Your task to perform on an android device: Open calendar and show me the third week of next month Image 0: 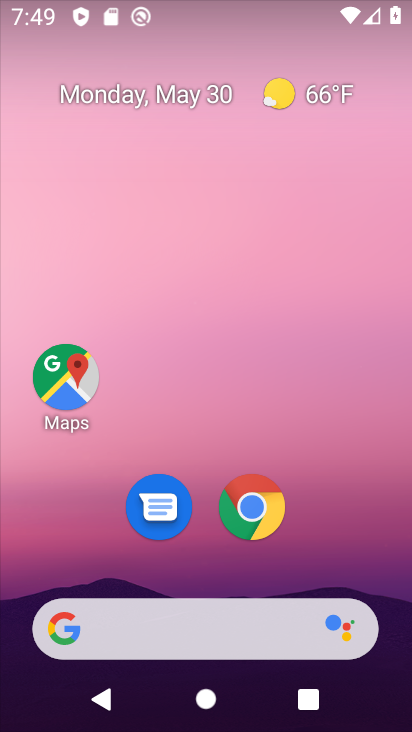
Step 0: drag from (345, 523) to (284, 171)
Your task to perform on an android device: Open calendar and show me the third week of next month Image 1: 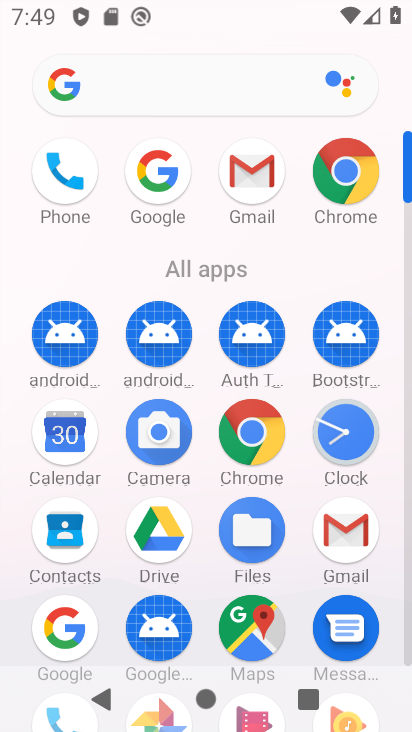
Step 1: click (57, 431)
Your task to perform on an android device: Open calendar and show me the third week of next month Image 2: 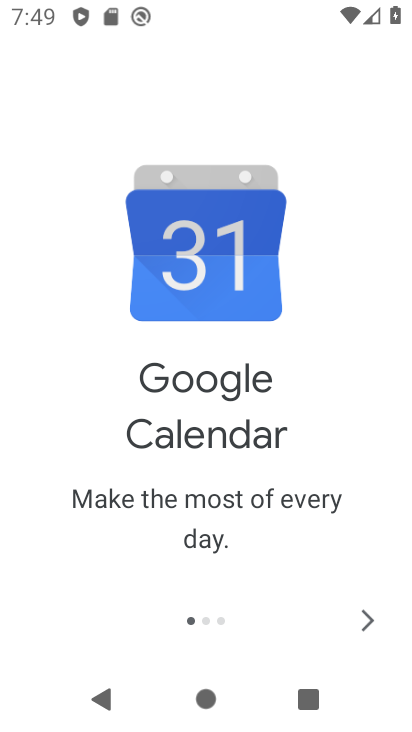
Step 2: click (357, 620)
Your task to perform on an android device: Open calendar and show me the third week of next month Image 3: 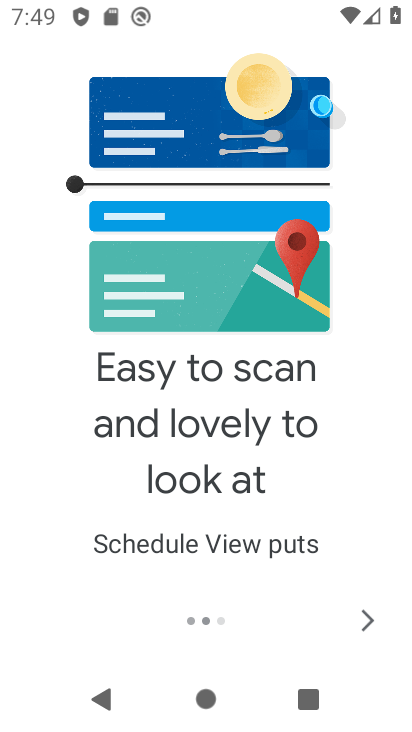
Step 3: click (357, 620)
Your task to perform on an android device: Open calendar and show me the third week of next month Image 4: 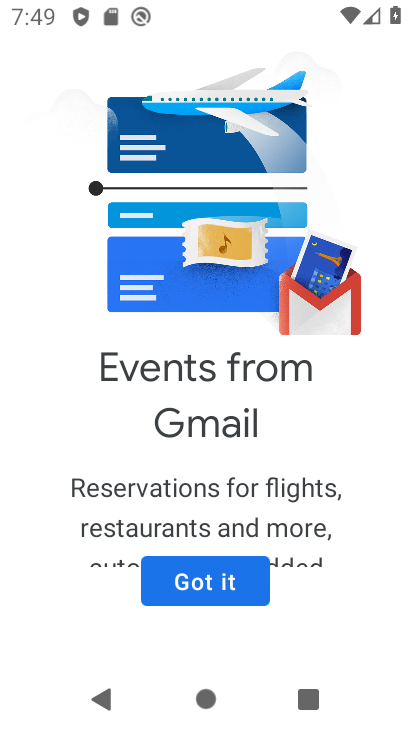
Step 4: click (181, 599)
Your task to perform on an android device: Open calendar and show me the third week of next month Image 5: 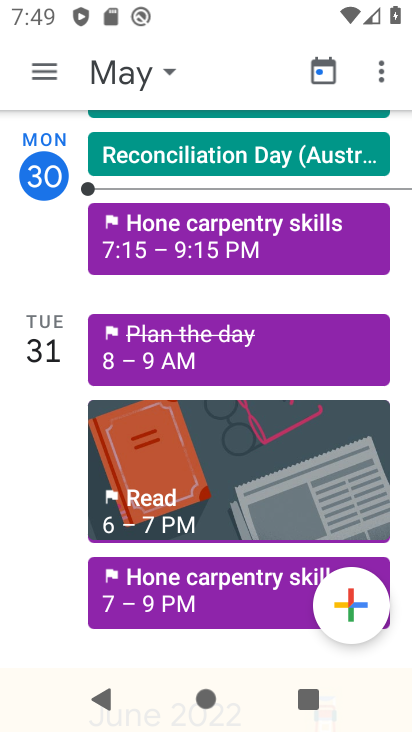
Step 5: click (110, 73)
Your task to perform on an android device: Open calendar and show me the third week of next month Image 6: 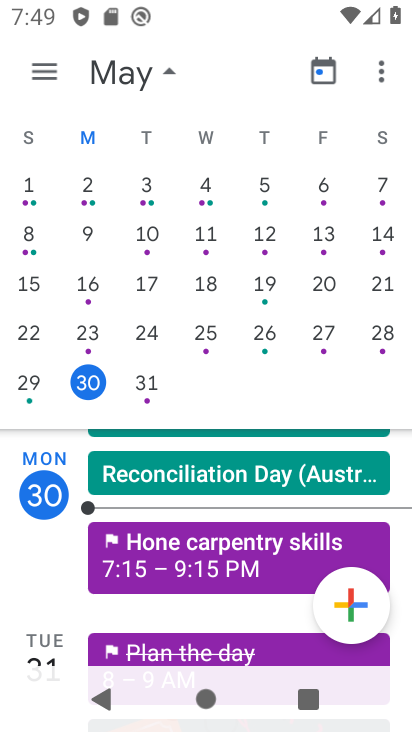
Step 6: drag from (379, 318) to (69, 278)
Your task to perform on an android device: Open calendar and show me the third week of next month Image 7: 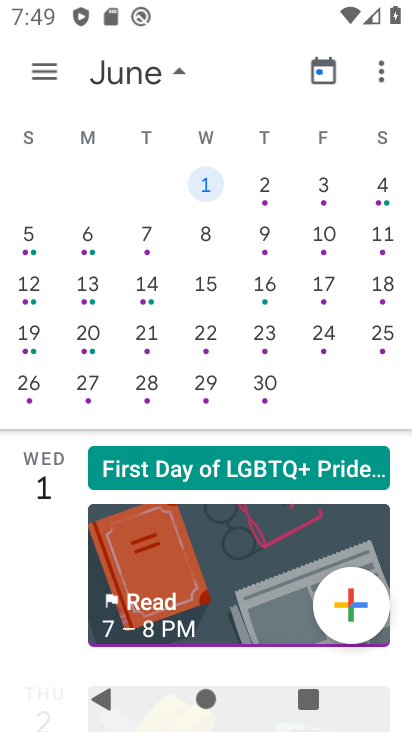
Step 7: click (27, 336)
Your task to perform on an android device: Open calendar and show me the third week of next month Image 8: 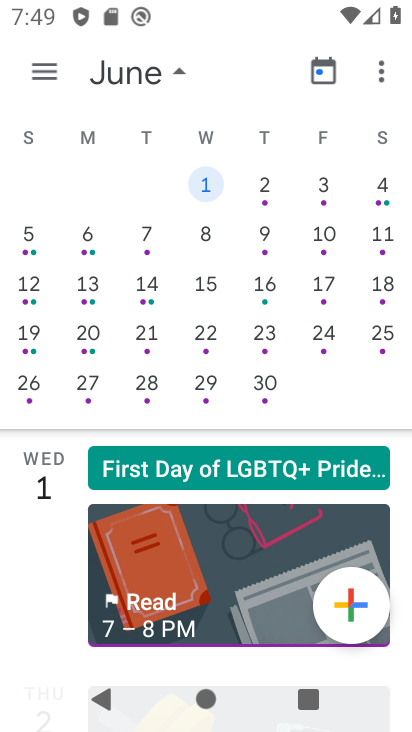
Step 8: click (34, 336)
Your task to perform on an android device: Open calendar and show me the third week of next month Image 9: 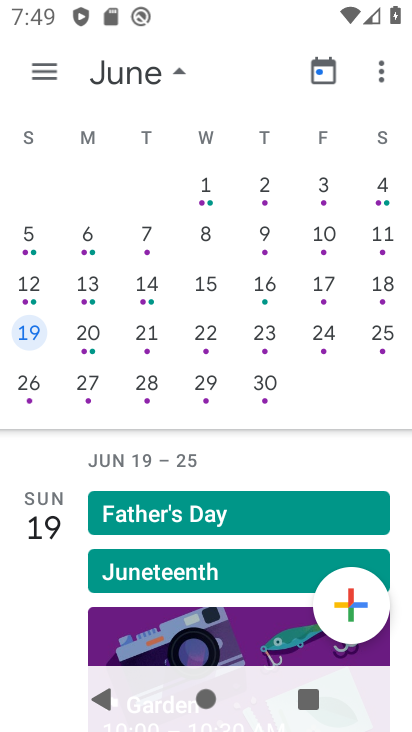
Step 9: task complete